Your task to perform on an android device: Open eBay Image 0: 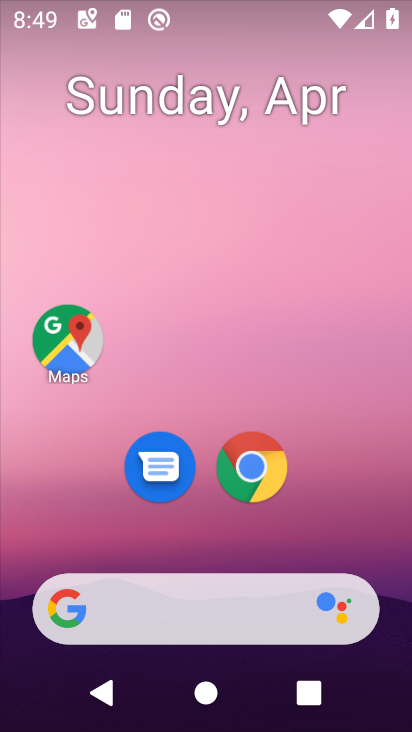
Step 0: click (225, 466)
Your task to perform on an android device: Open eBay Image 1: 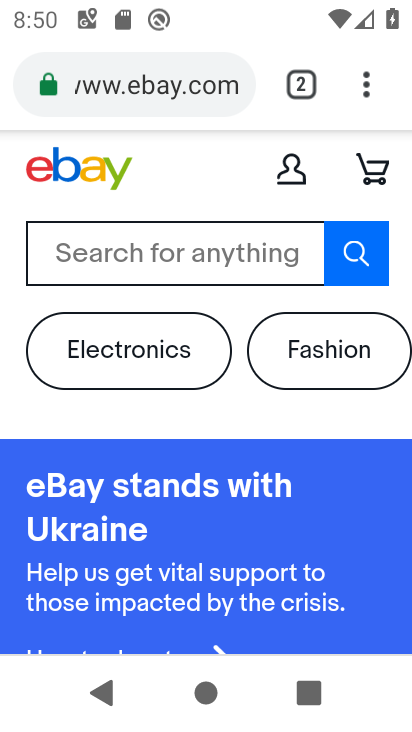
Step 1: task complete